Your task to perform on an android device: toggle show notifications on the lock screen Image 0: 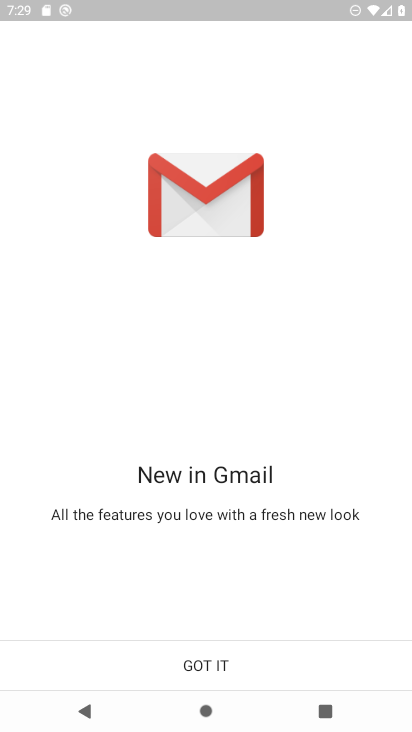
Step 0: press home button
Your task to perform on an android device: toggle show notifications on the lock screen Image 1: 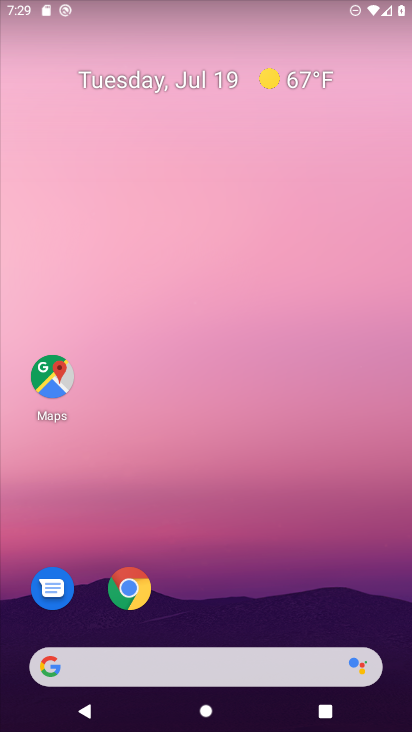
Step 1: drag from (341, 602) to (386, 108)
Your task to perform on an android device: toggle show notifications on the lock screen Image 2: 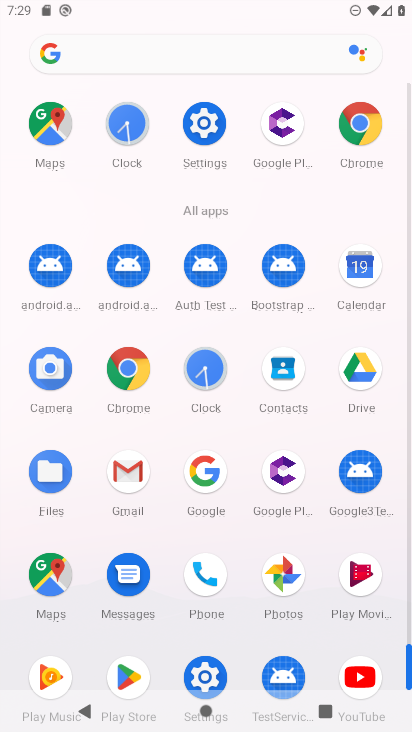
Step 2: click (206, 127)
Your task to perform on an android device: toggle show notifications on the lock screen Image 3: 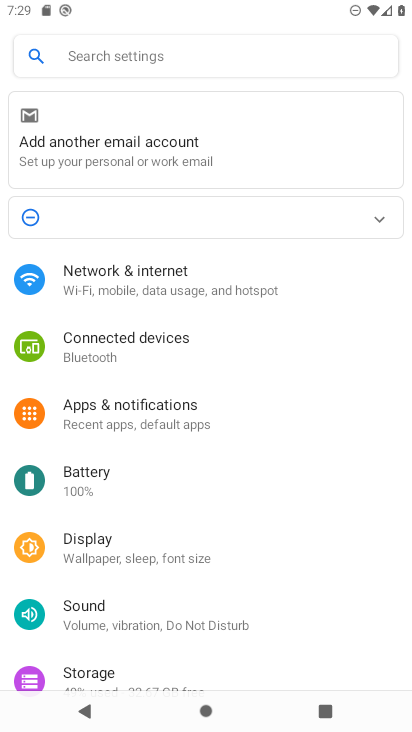
Step 3: drag from (311, 496) to (324, 442)
Your task to perform on an android device: toggle show notifications on the lock screen Image 4: 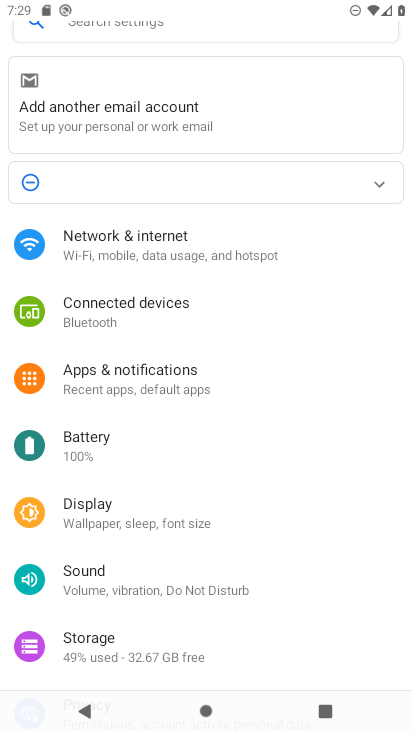
Step 4: drag from (328, 522) to (342, 423)
Your task to perform on an android device: toggle show notifications on the lock screen Image 5: 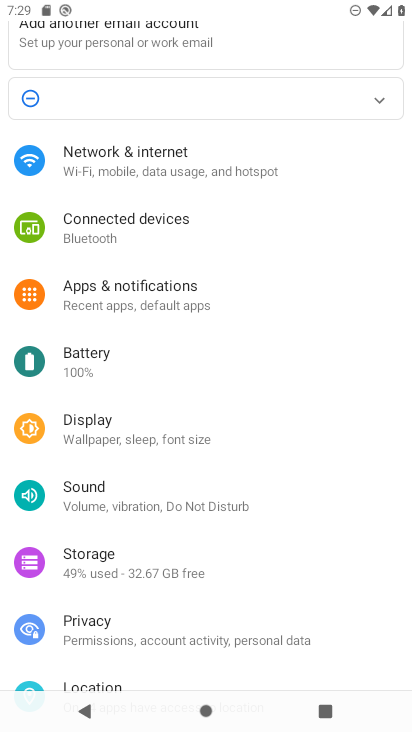
Step 5: click (269, 311)
Your task to perform on an android device: toggle show notifications on the lock screen Image 6: 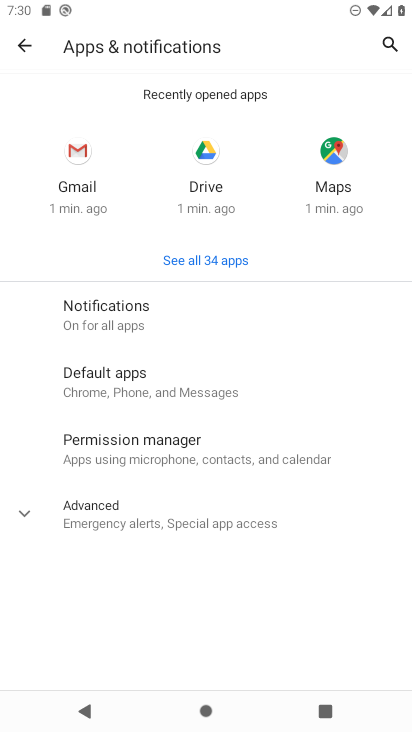
Step 6: click (261, 324)
Your task to perform on an android device: toggle show notifications on the lock screen Image 7: 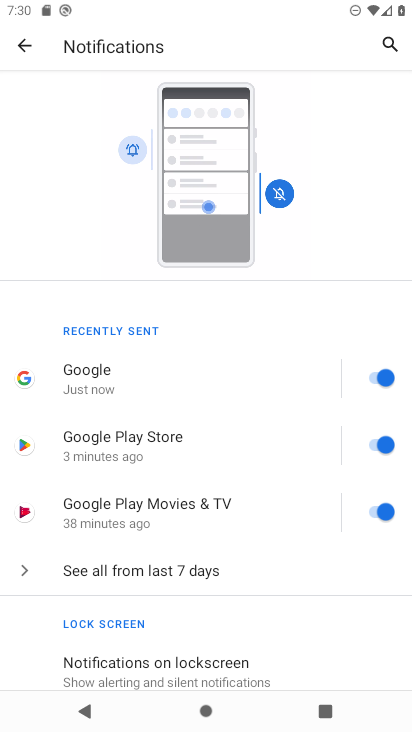
Step 7: drag from (298, 492) to (306, 435)
Your task to perform on an android device: toggle show notifications on the lock screen Image 8: 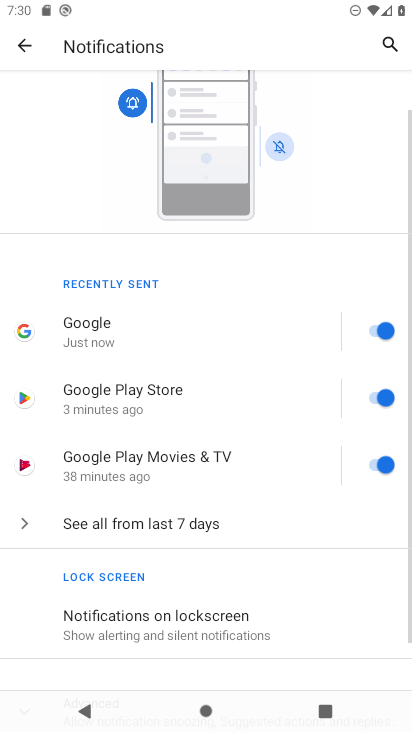
Step 8: drag from (303, 538) to (312, 429)
Your task to perform on an android device: toggle show notifications on the lock screen Image 9: 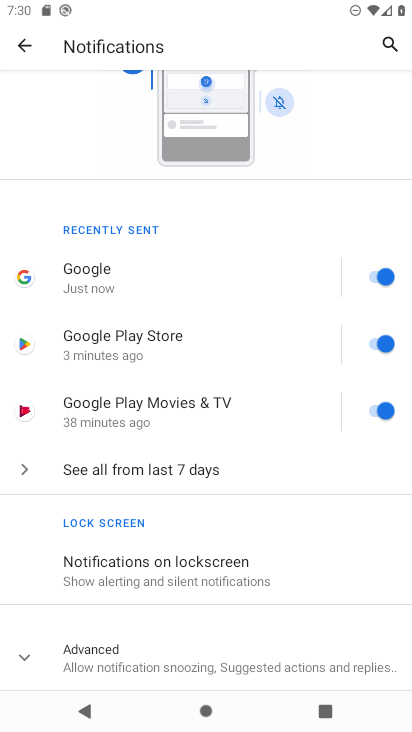
Step 9: click (288, 578)
Your task to perform on an android device: toggle show notifications on the lock screen Image 10: 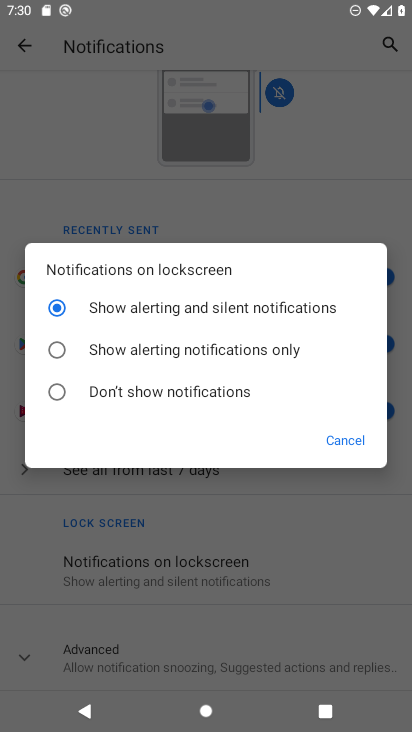
Step 10: click (252, 346)
Your task to perform on an android device: toggle show notifications on the lock screen Image 11: 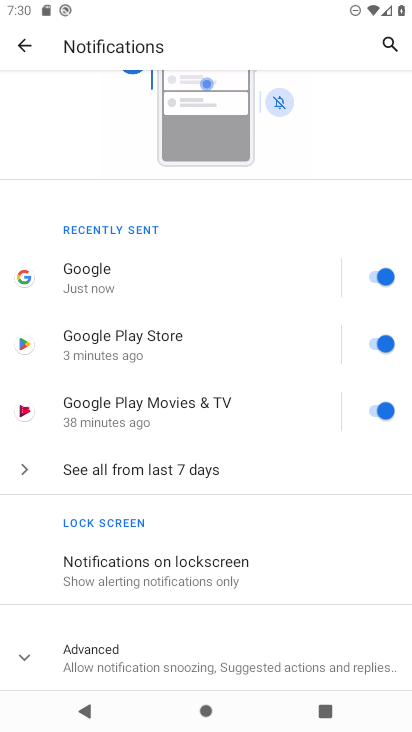
Step 11: task complete